Your task to perform on an android device: see sites visited before in the chrome app Image 0: 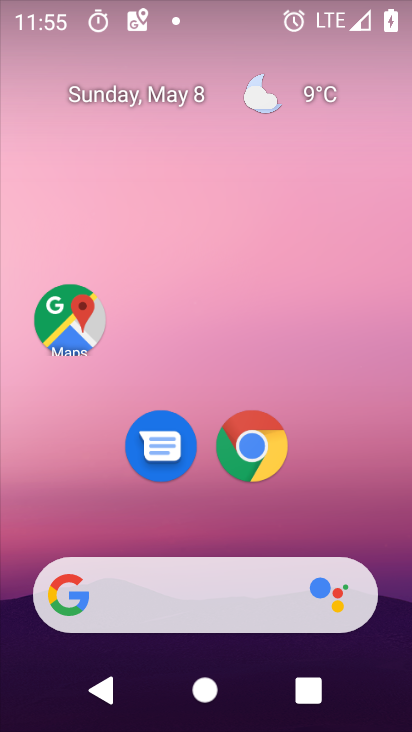
Step 0: click (259, 450)
Your task to perform on an android device: see sites visited before in the chrome app Image 1: 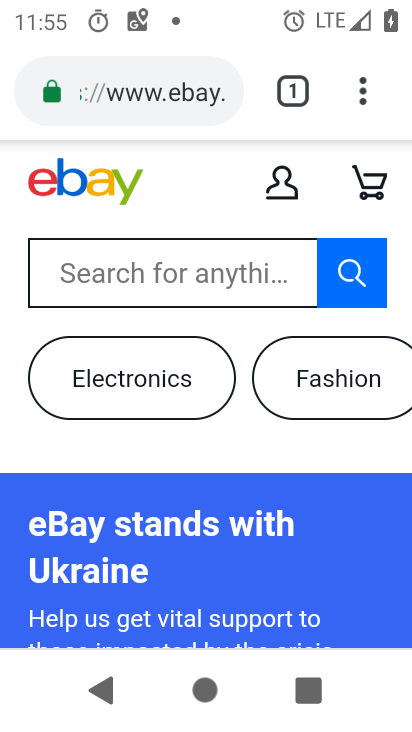
Step 1: click (366, 94)
Your task to perform on an android device: see sites visited before in the chrome app Image 2: 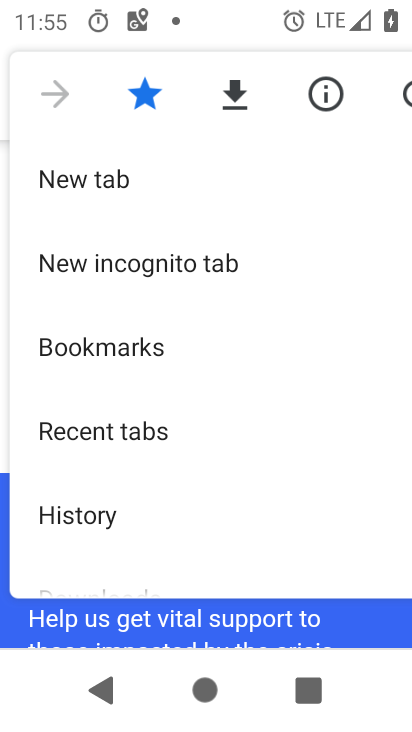
Step 2: click (87, 515)
Your task to perform on an android device: see sites visited before in the chrome app Image 3: 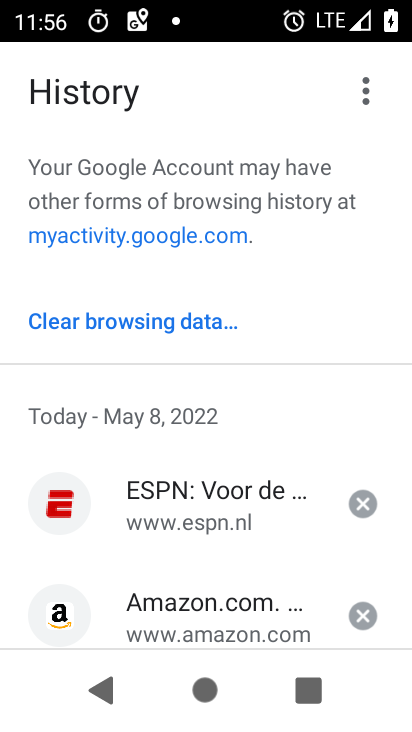
Step 3: task complete